Your task to perform on an android device: Show the shopping cart on target. Image 0: 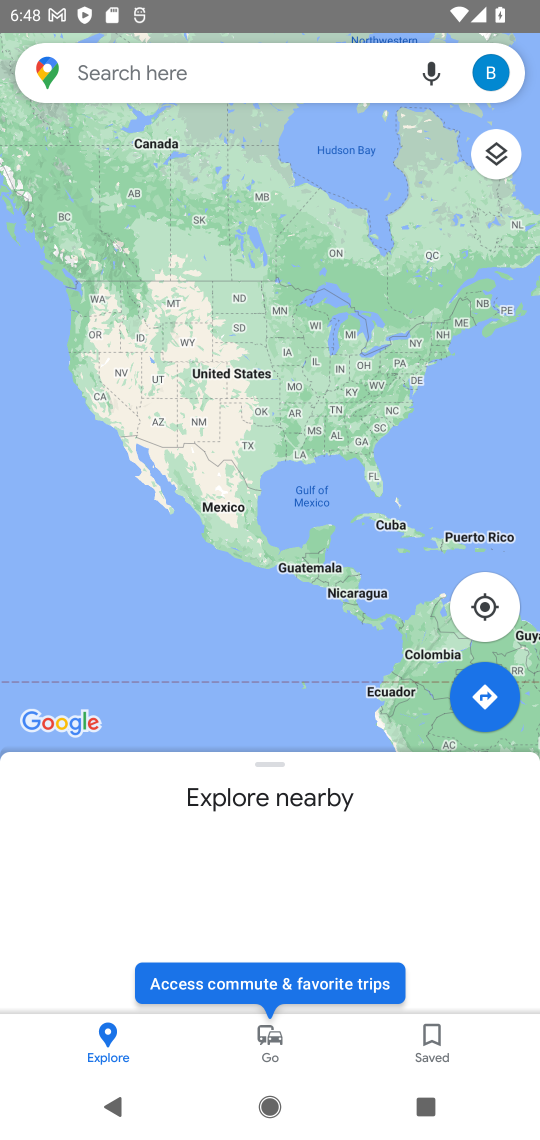
Step 0: press home button
Your task to perform on an android device: Show the shopping cart on target. Image 1: 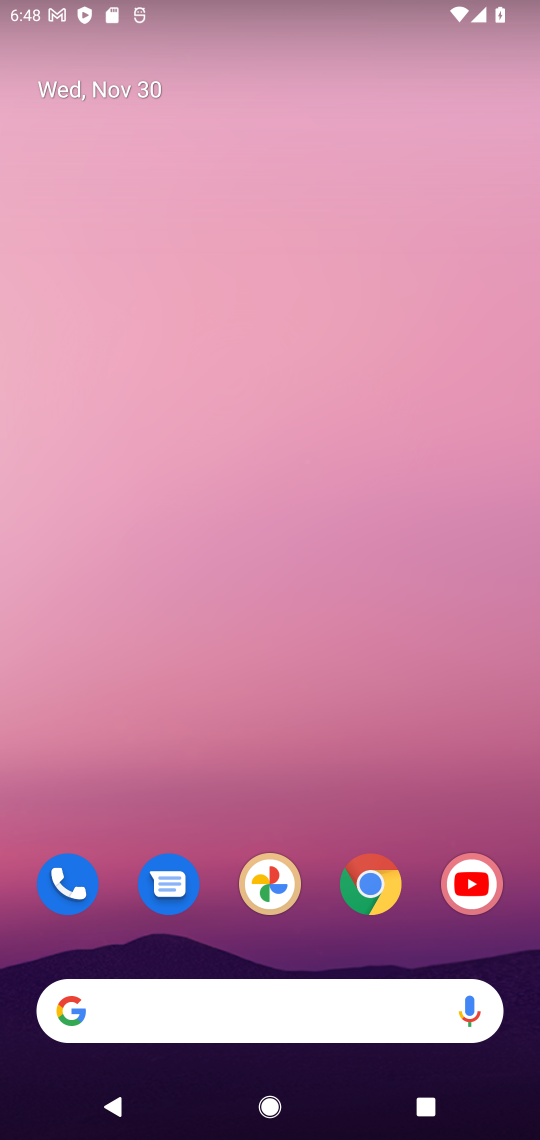
Step 1: click (367, 895)
Your task to perform on an android device: Show the shopping cart on target. Image 2: 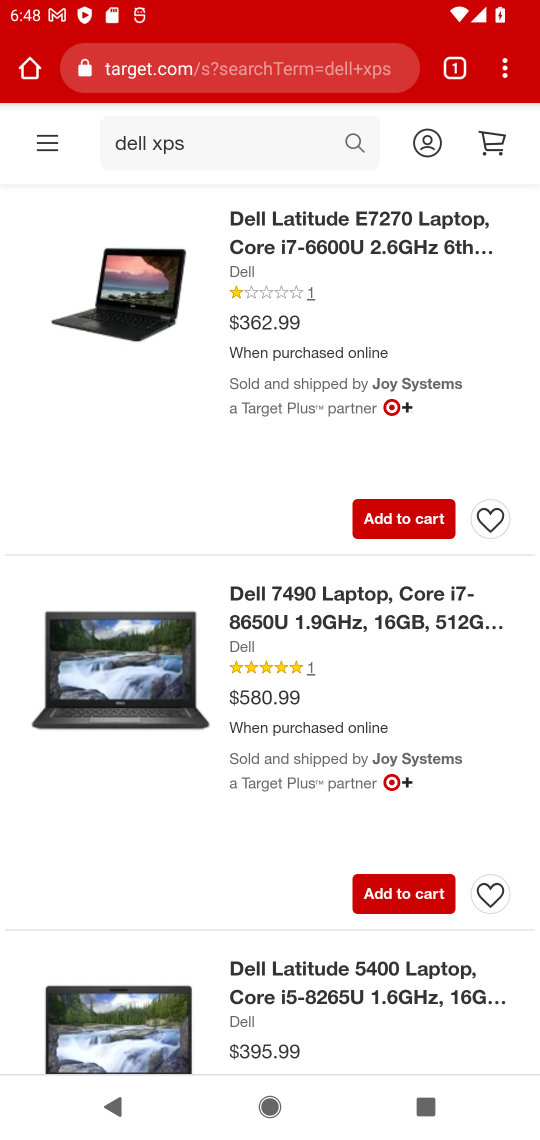
Step 2: click (493, 145)
Your task to perform on an android device: Show the shopping cart on target. Image 3: 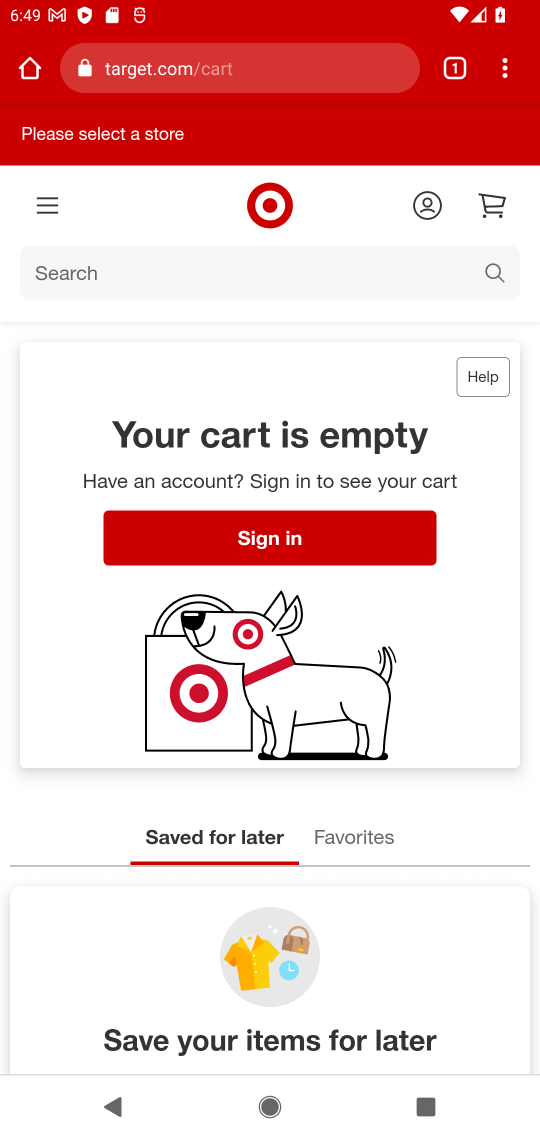
Step 3: task complete